Your task to perform on an android device: open a bookmark in the chrome app Image 0: 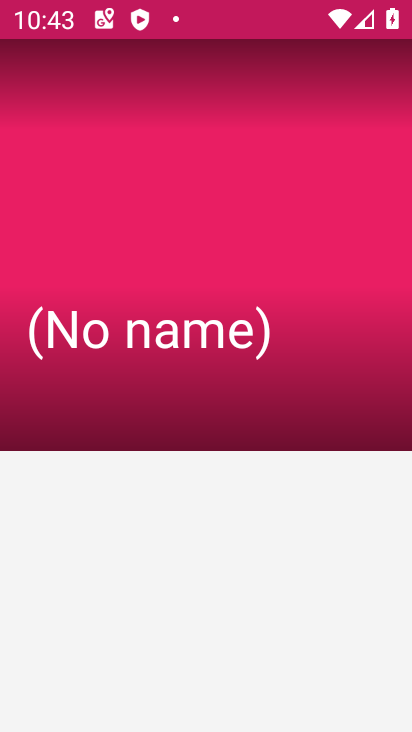
Step 0: press home button
Your task to perform on an android device: open a bookmark in the chrome app Image 1: 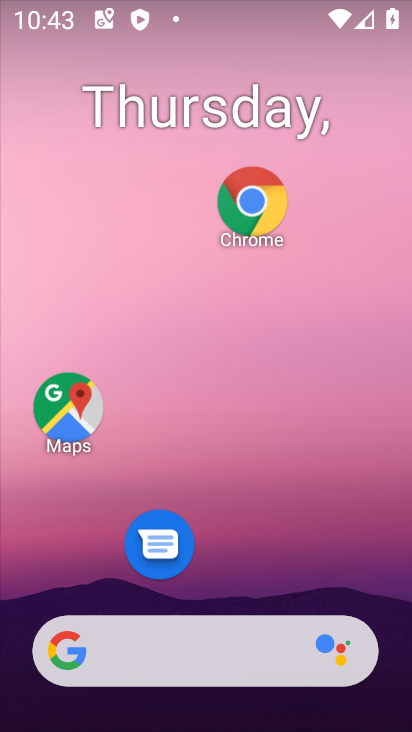
Step 1: drag from (240, 75) to (216, 3)
Your task to perform on an android device: open a bookmark in the chrome app Image 2: 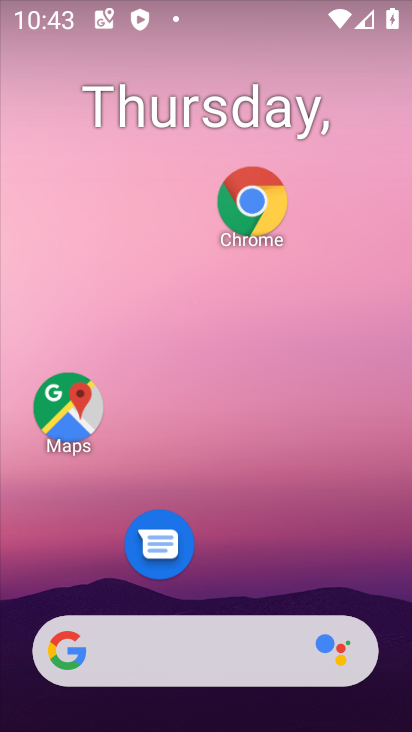
Step 2: click (246, 185)
Your task to perform on an android device: open a bookmark in the chrome app Image 3: 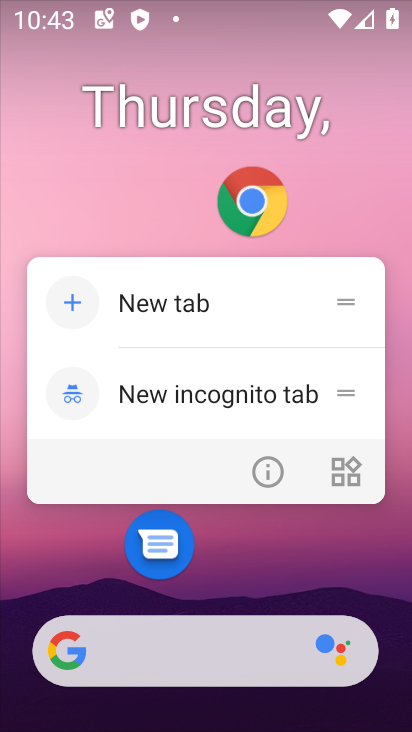
Step 3: click (244, 207)
Your task to perform on an android device: open a bookmark in the chrome app Image 4: 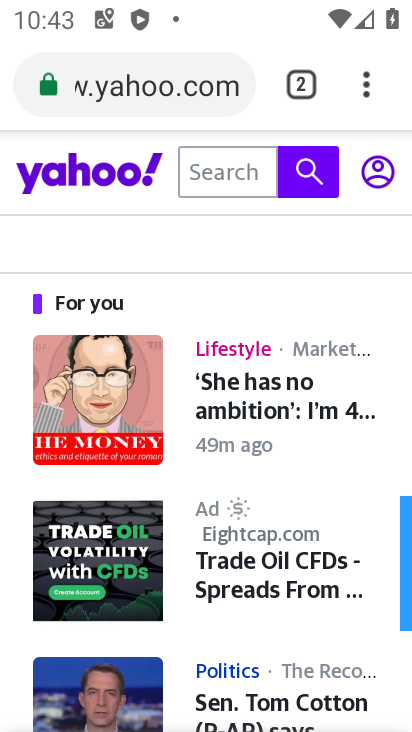
Step 4: click (370, 80)
Your task to perform on an android device: open a bookmark in the chrome app Image 5: 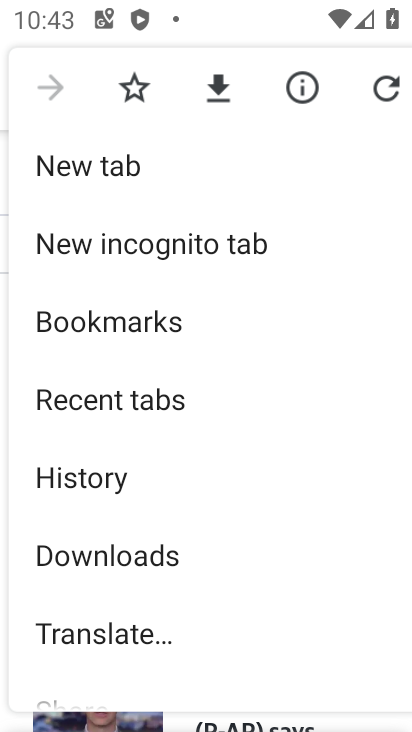
Step 5: click (181, 319)
Your task to perform on an android device: open a bookmark in the chrome app Image 6: 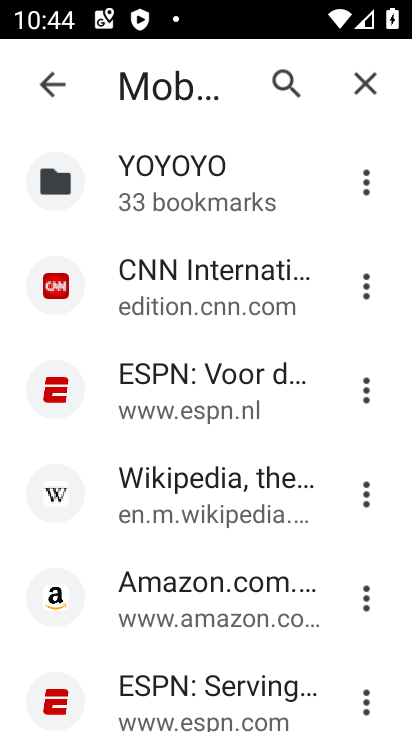
Step 6: click (200, 274)
Your task to perform on an android device: open a bookmark in the chrome app Image 7: 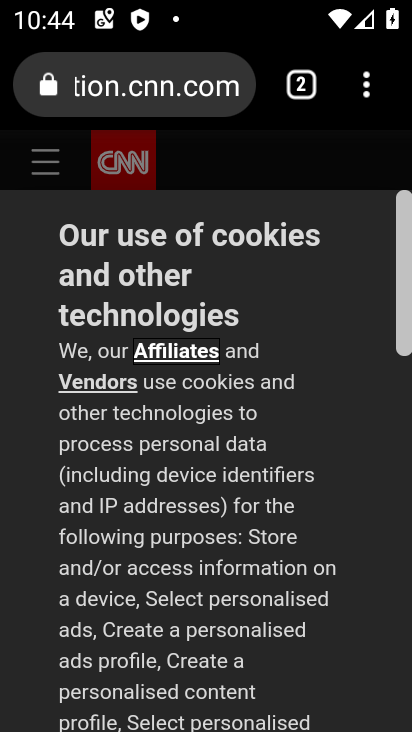
Step 7: task complete